Your task to perform on an android device: Open settings on Google Maps Image 0: 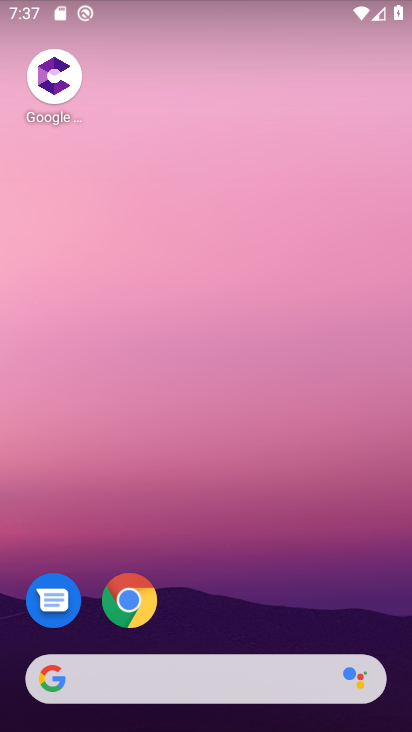
Step 0: drag from (210, 587) to (181, 24)
Your task to perform on an android device: Open settings on Google Maps Image 1: 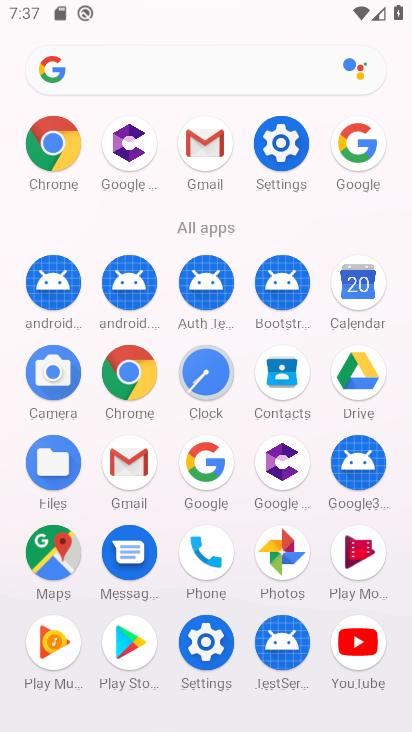
Step 1: click (53, 550)
Your task to perform on an android device: Open settings on Google Maps Image 2: 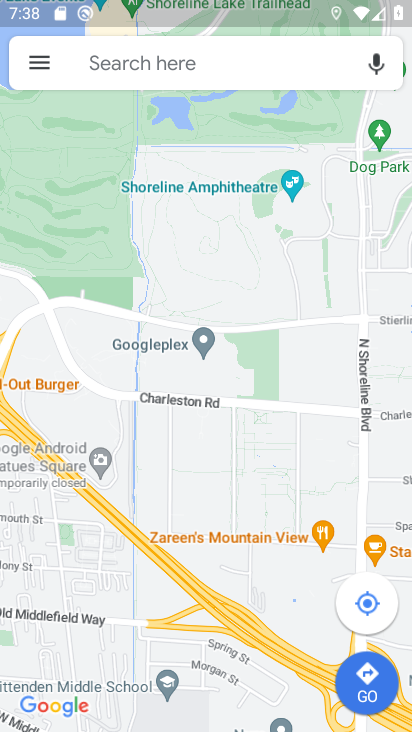
Step 2: click (45, 53)
Your task to perform on an android device: Open settings on Google Maps Image 3: 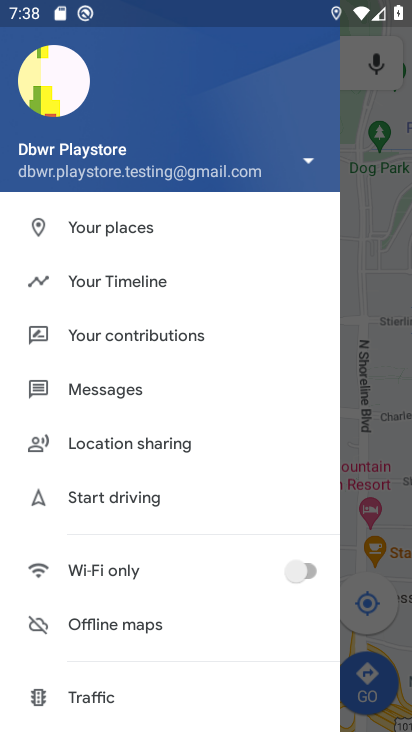
Step 3: drag from (191, 624) to (173, 396)
Your task to perform on an android device: Open settings on Google Maps Image 4: 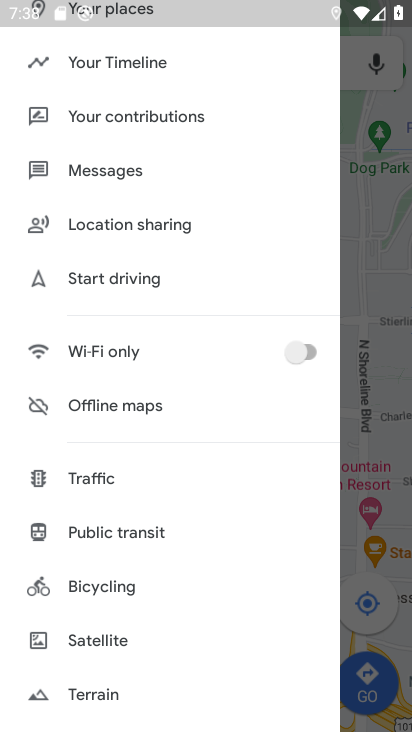
Step 4: drag from (192, 556) to (176, 270)
Your task to perform on an android device: Open settings on Google Maps Image 5: 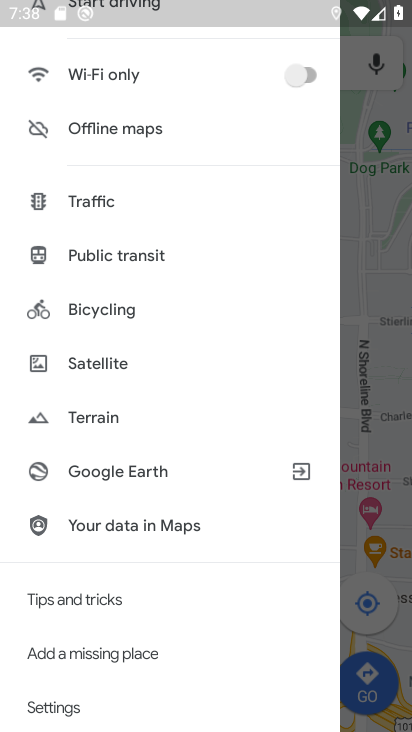
Step 5: click (65, 703)
Your task to perform on an android device: Open settings on Google Maps Image 6: 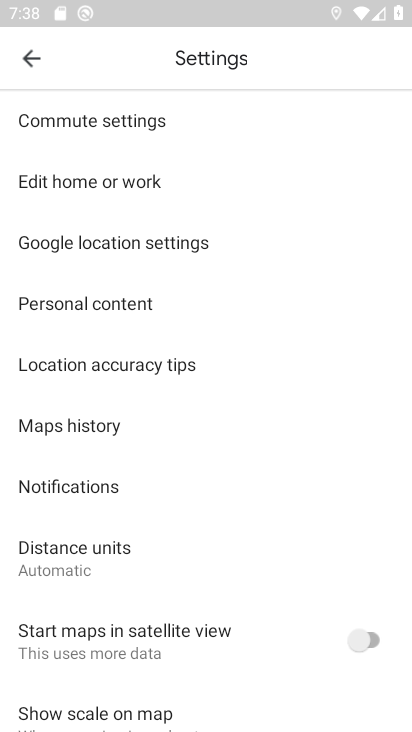
Step 6: task complete